Your task to perform on an android device: Go to internet settings Image 0: 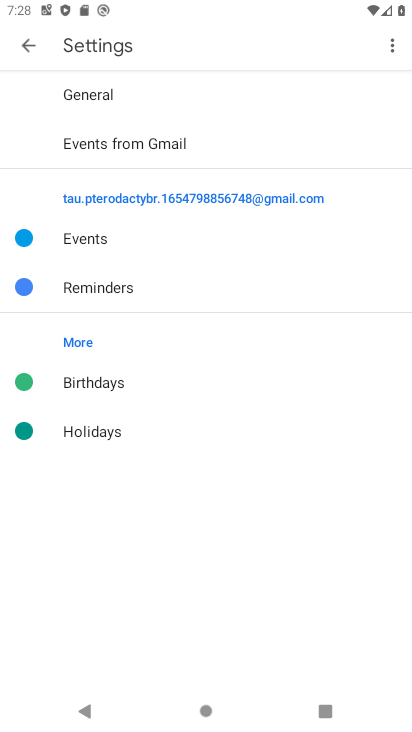
Step 0: press home button
Your task to perform on an android device: Go to internet settings Image 1: 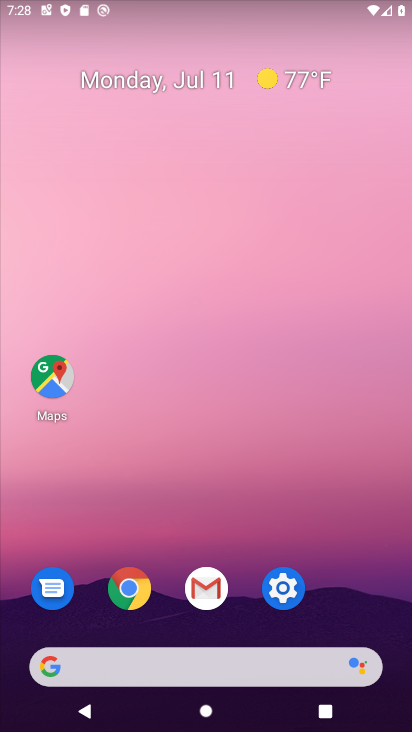
Step 1: drag from (277, 687) to (208, 242)
Your task to perform on an android device: Go to internet settings Image 2: 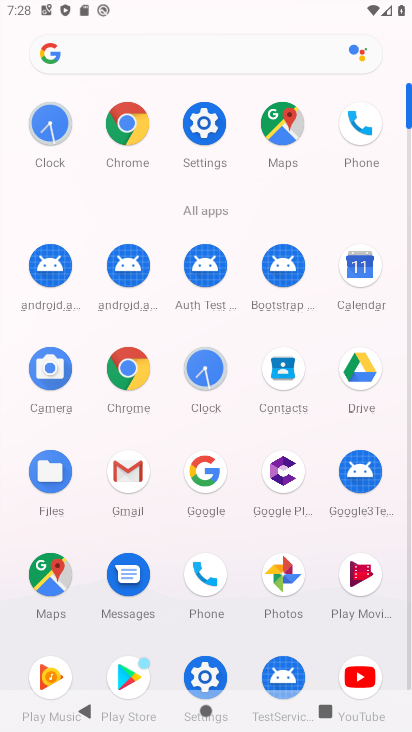
Step 2: click (198, 140)
Your task to perform on an android device: Go to internet settings Image 3: 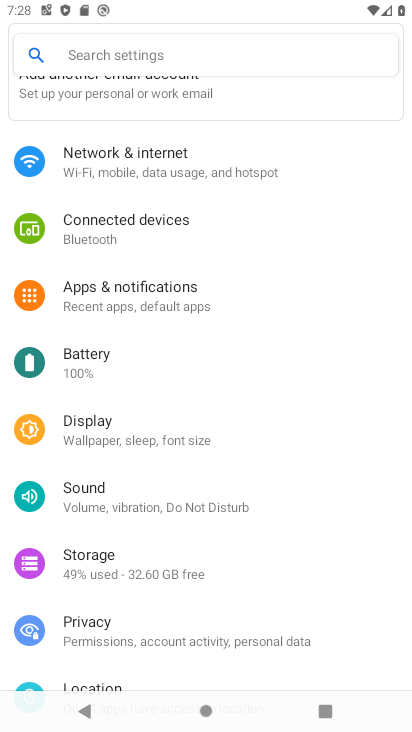
Step 3: click (141, 170)
Your task to perform on an android device: Go to internet settings Image 4: 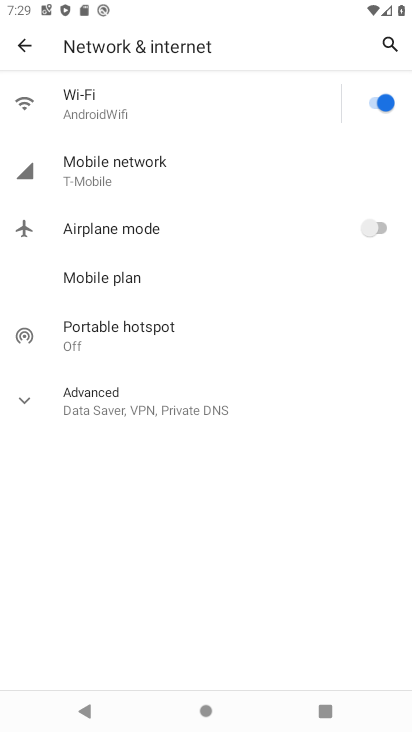
Step 4: task complete